Your task to perform on an android device: Set the phone to "Do not disturb". Image 0: 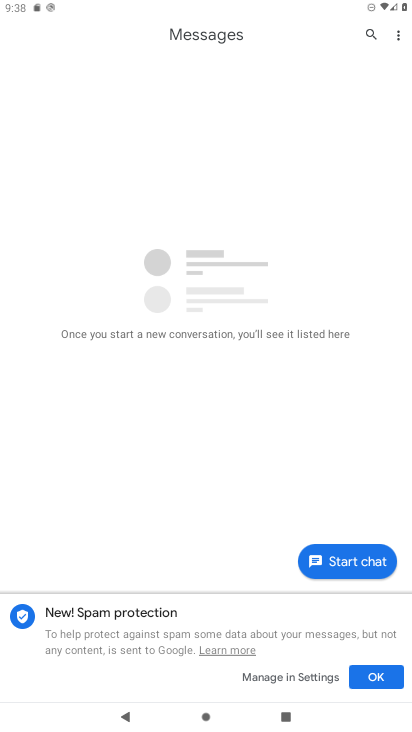
Step 0: press home button
Your task to perform on an android device: Set the phone to "Do not disturb". Image 1: 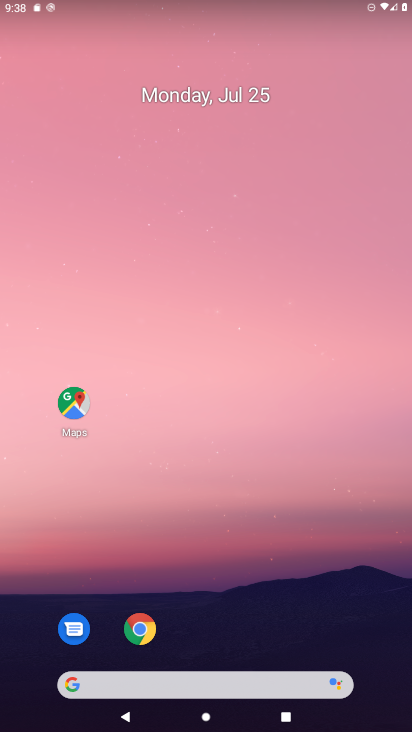
Step 1: drag from (231, 620) to (260, 63)
Your task to perform on an android device: Set the phone to "Do not disturb". Image 2: 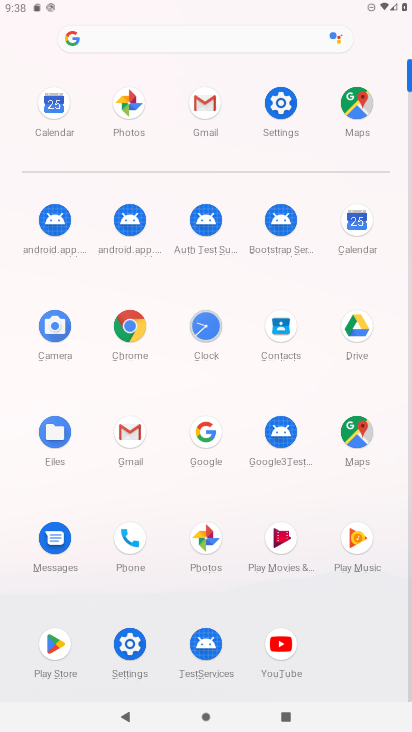
Step 2: click (282, 105)
Your task to perform on an android device: Set the phone to "Do not disturb". Image 3: 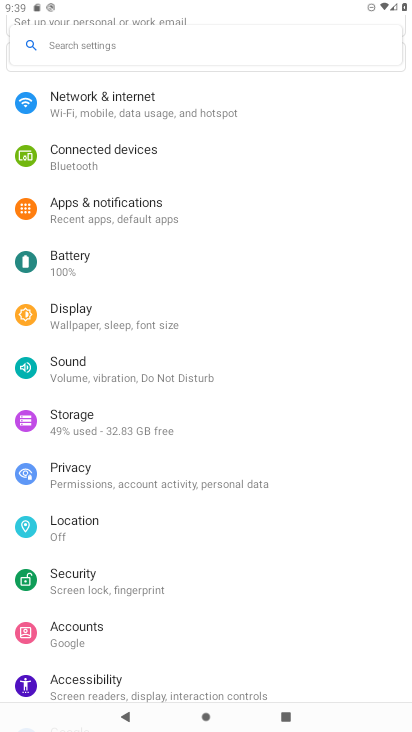
Step 3: click (49, 376)
Your task to perform on an android device: Set the phone to "Do not disturb". Image 4: 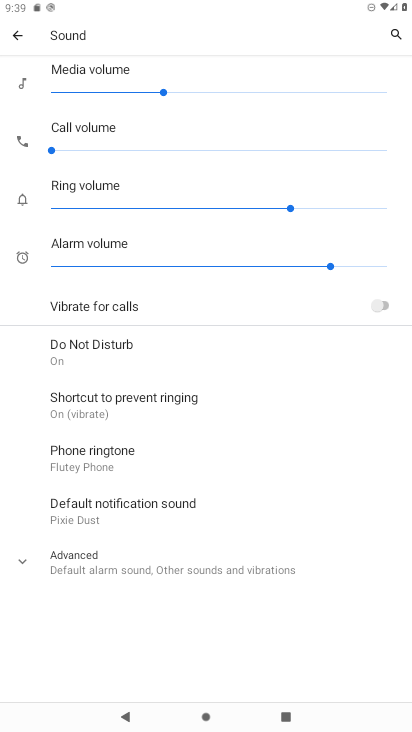
Step 4: click (76, 353)
Your task to perform on an android device: Set the phone to "Do not disturb". Image 5: 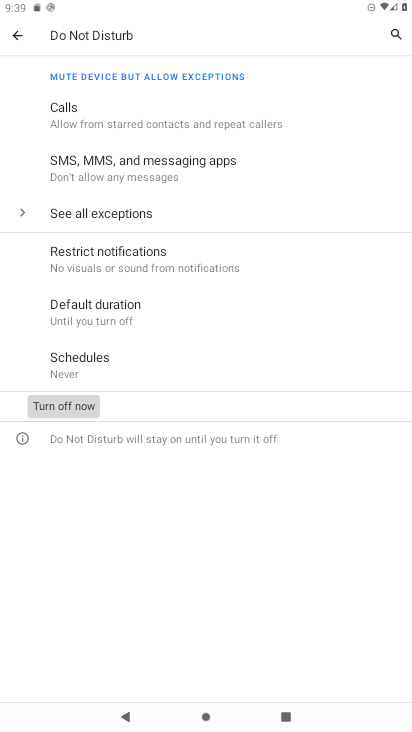
Step 5: task complete